Your task to perform on an android device: turn notification dots off Image 0: 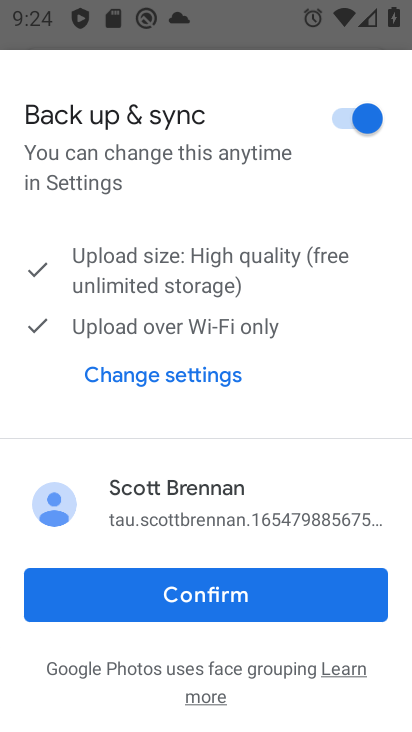
Step 0: press home button
Your task to perform on an android device: turn notification dots off Image 1: 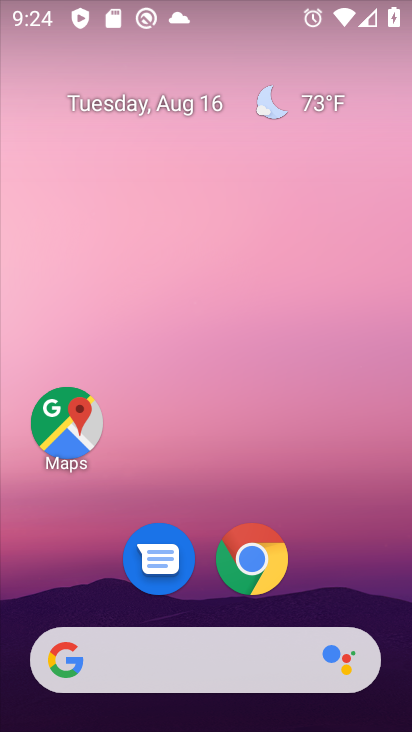
Step 1: drag from (212, 670) to (299, 182)
Your task to perform on an android device: turn notification dots off Image 2: 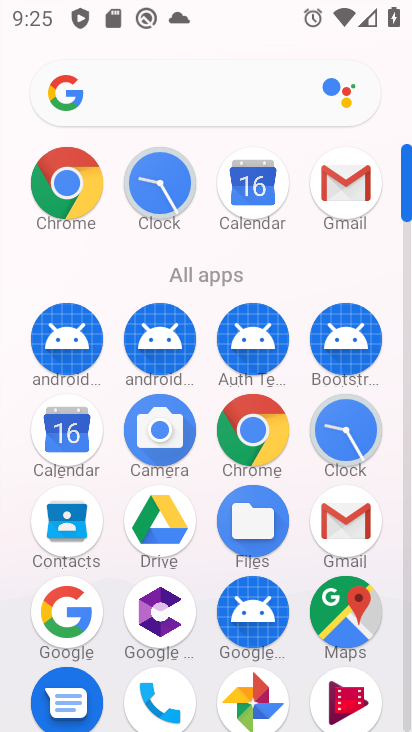
Step 2: drag from (299, 284) to (290, 149)
Your task to perform on an android device: turn notification dots off Image 3: 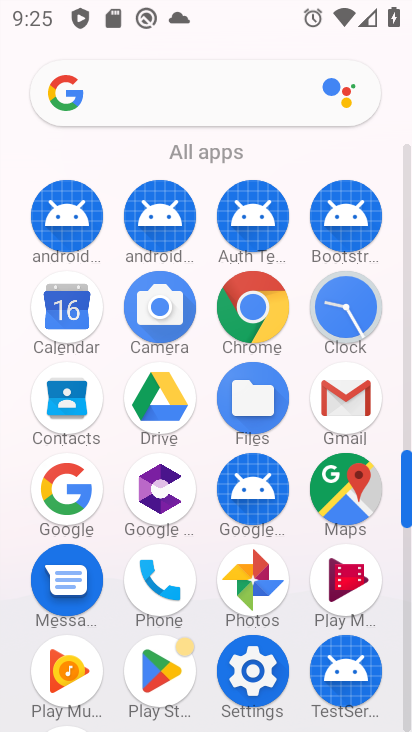
Step 3: click (251, 669)
Your task to perform on an android device: turn notification dots off Image 4: 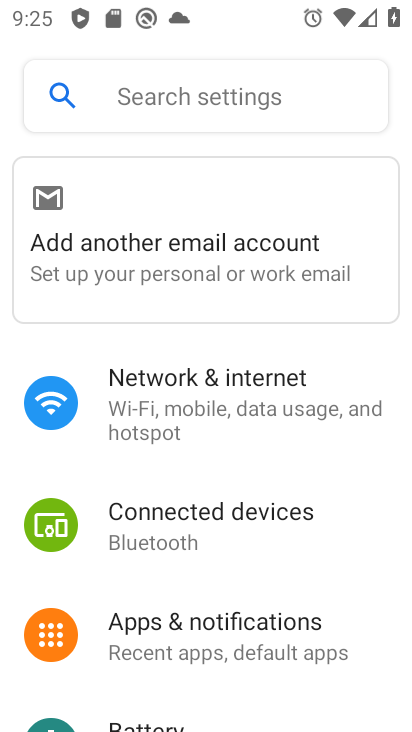
Step 4: click (267, 637)
Your task to perform on an android device: turn notification dots off Image 5: 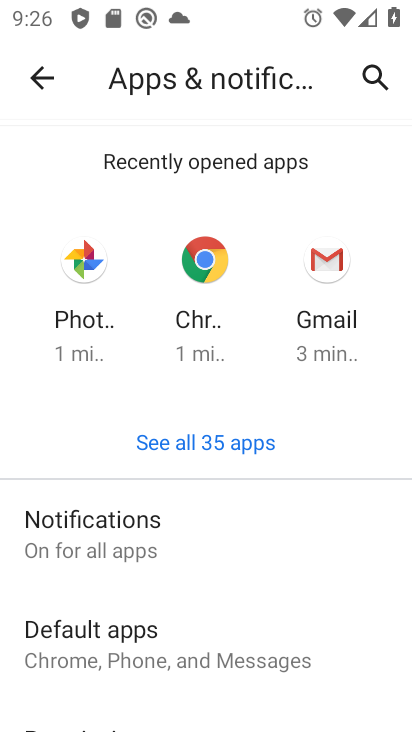
Step 5: click (137, 549)
Your task to perform on an android device: turn notification dots off Image 6: 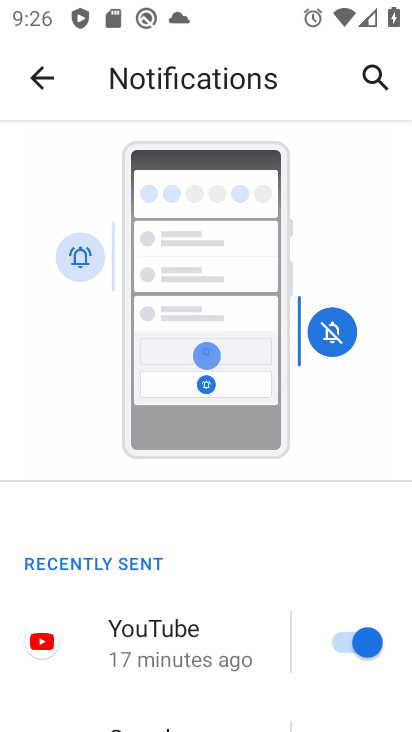
Step 6: drag from (221, 592) to (232, 381)
Your task to perform on an android device: turn notification dots off Image 7: 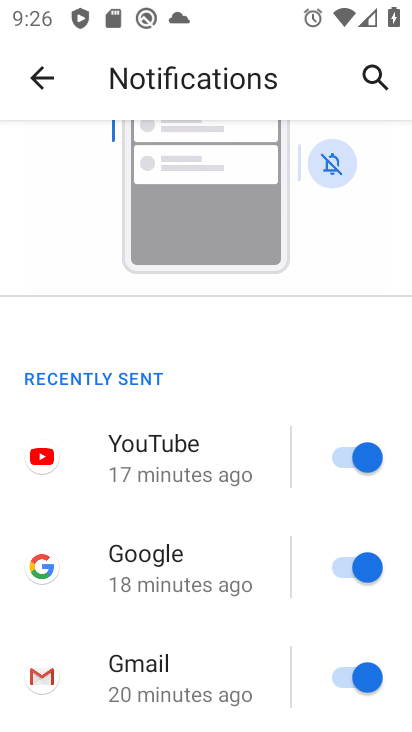
Step 7: drag from (197, 524) to (253, 389)
Your task to perform on an android device: turn notification dots off Image 8: 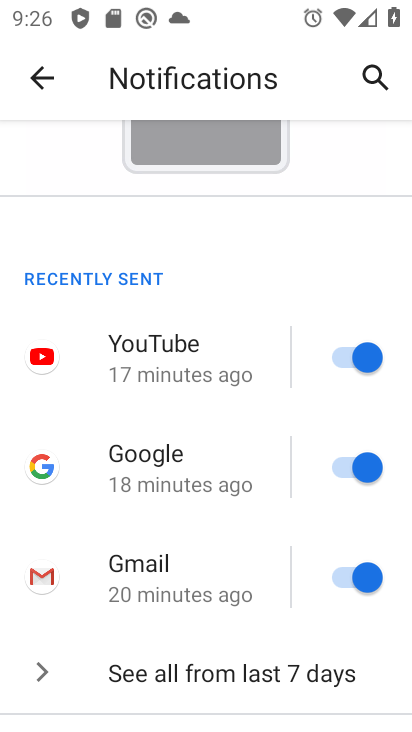
Step 8: drag from (200, 536) to (235, 429)
Your task to perform on an android device: turn notification dots off Image 9: 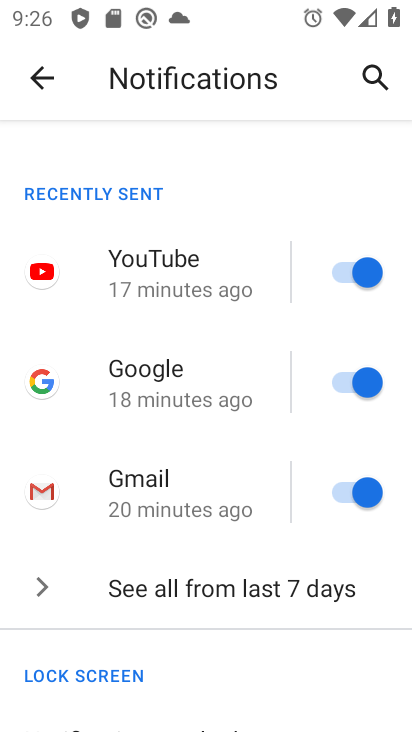
Step 9: drag from (207, 649) to (229, 519)
Your task to perform on an android device: turn notification dots off Image 10: 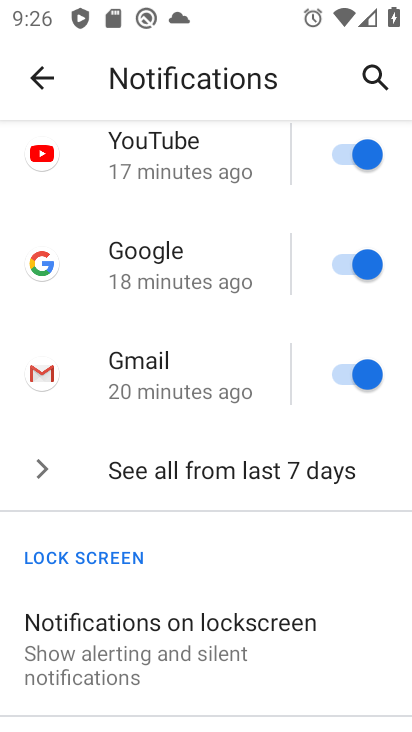
Step 10: drag from (221, 672) to (253, 558)
Your task to perform on an android device: turn notification dots off Image 11: 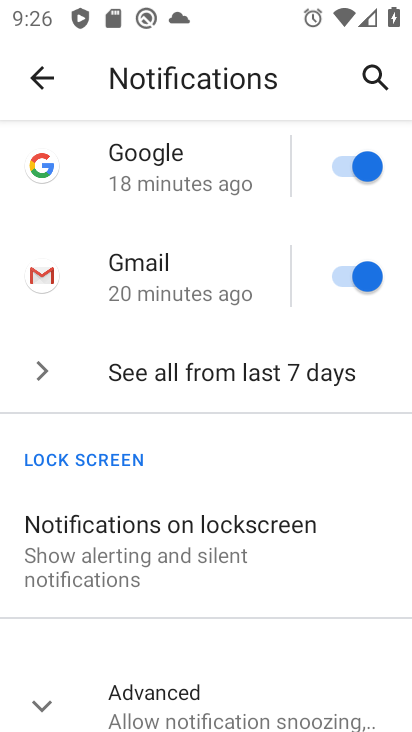
Step 11: drag from (164, 615) to (223, 496)
Your task to perform on an android device: turn notification dots off Image 12: 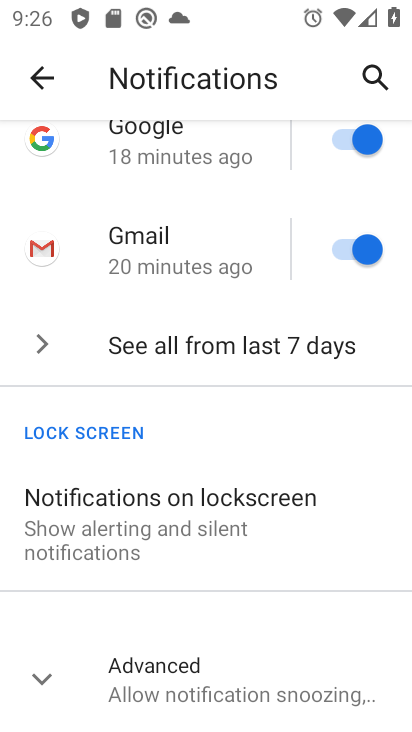
Step 12: click (175, 677)
Your task to perform on an android device: turn notification dots off Image 13: 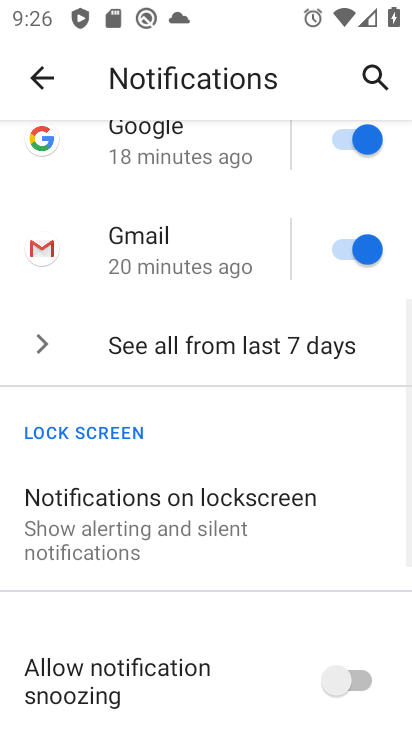
Step 13: drag from (196, 623) to (251, 482)
Your task to perform on an android device: turn notification dots off Image 14: 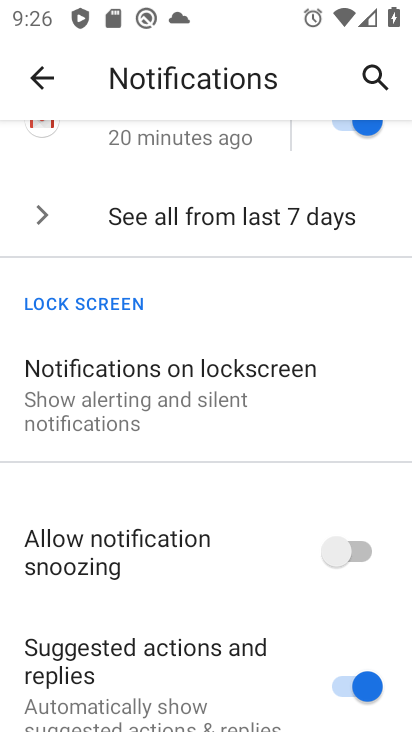
Step 14: drag from (232, 688) to (260, 510)
Your task to perform on an android device: turn notification dots off Image 15: 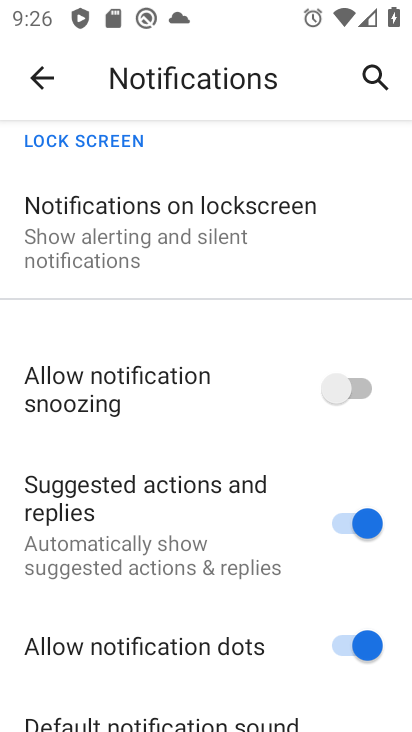
Step 15: click (337, 638)
Your task to perform on an android device: turn notification dots off Image 16: 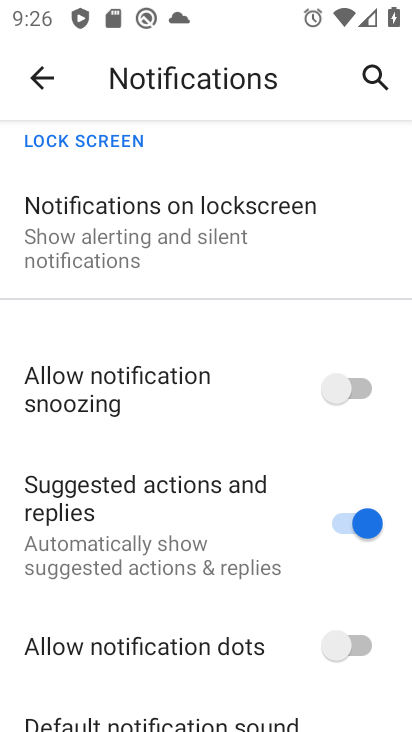
Step 16: task complete